Your task to perform on an android device: add a label to a message in the gmail app Image 0: 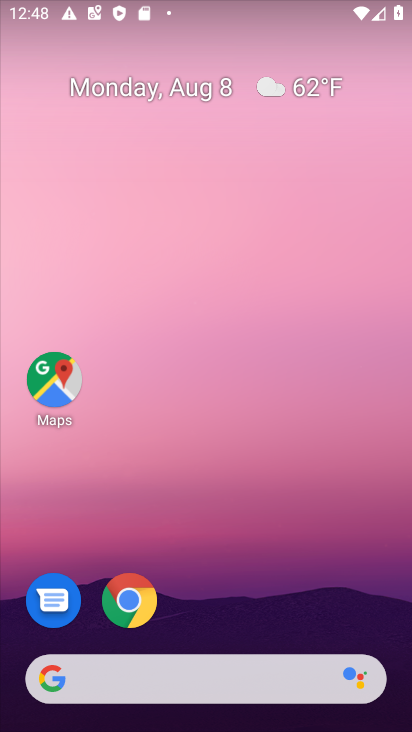
Step 0: drag from (212, 597) to (216, 197)
Your task to perform on an android device: add a label to a message in the gmail app Image 1: 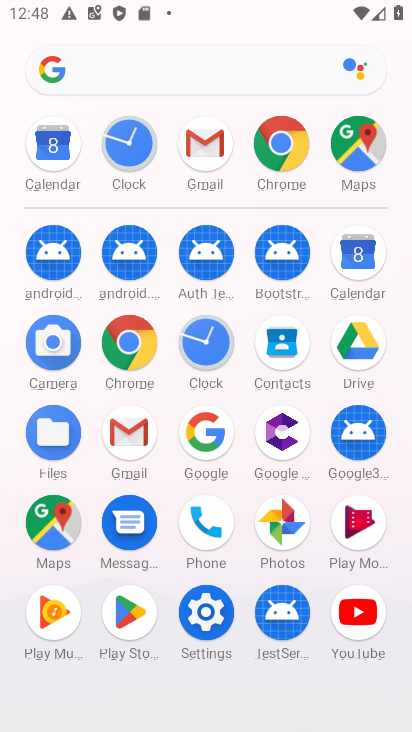
Step 1: click (222, 160)
Your task to perform on an android device: add a label to a message in the gmail app Image 2: 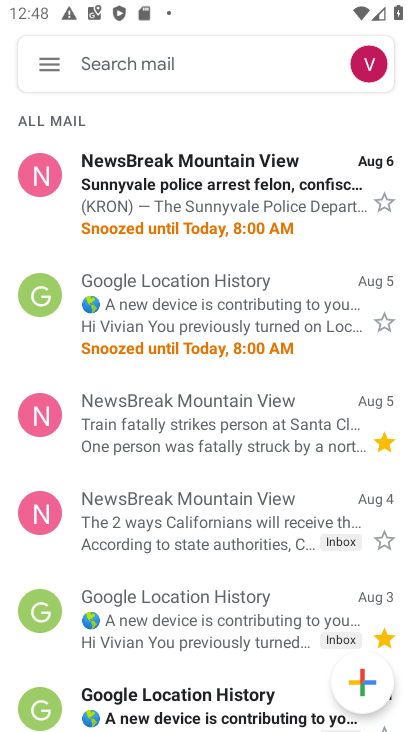
Step 2: click (131, 165)
Your task to perform on an android device: add a label to a message in the gmail app Image 3: 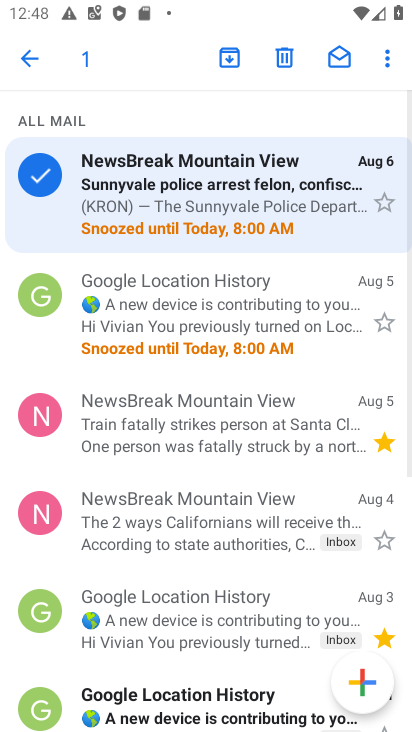
Step 3: click (380, 61)
Your task to perform on an android device: add a label to a message in the gmail app Image 4: 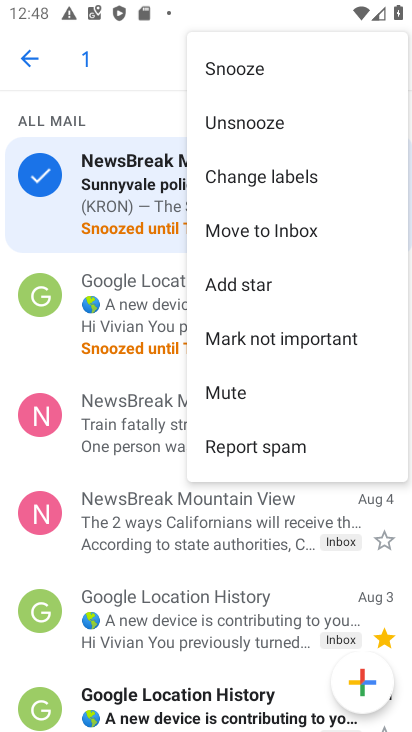
Step 4: click (284, 181)
Your task to perform on an android device: add a label to a message in the gmail app Image 5: 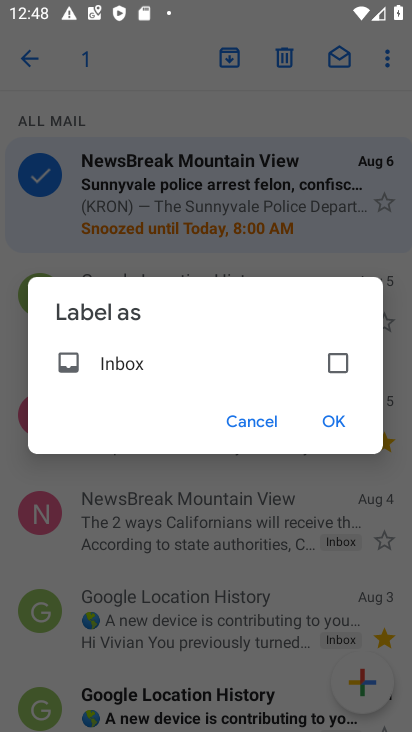
Step 5: click (333, 360)
Your task to perform on an android device: add a label to a message in the gmail app Image 6: 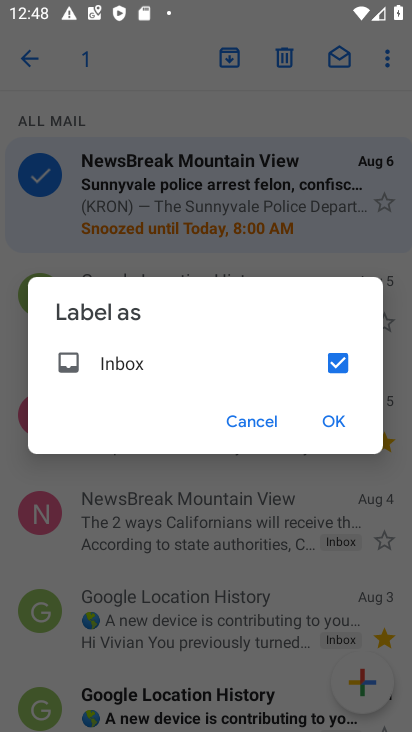
Step 6: click (335, 429)
Your task to perform on an android device: add a label to a message in the gmail app Image 7: 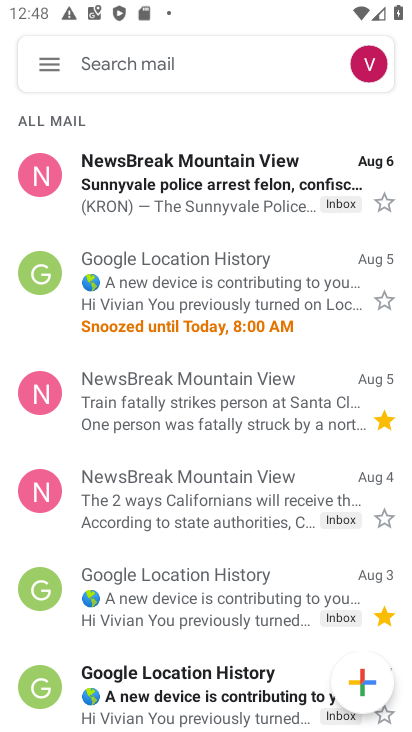
Step 7: task complete